Your task to perform on an android device: toggle notification dots Image 0: 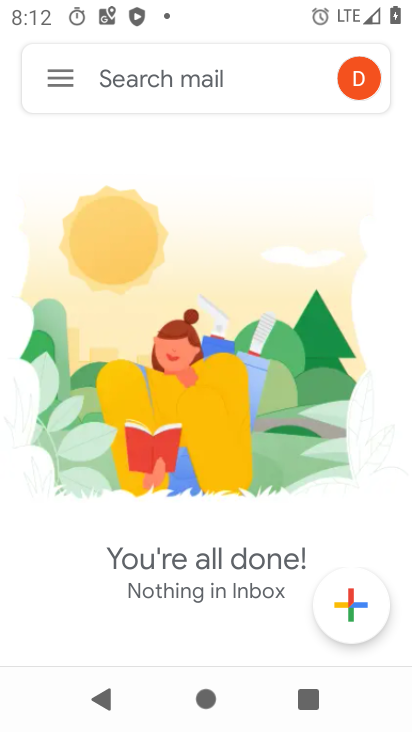
Step 0: press home button
Your task to perform on an android device: toggle notification dots Image 1: 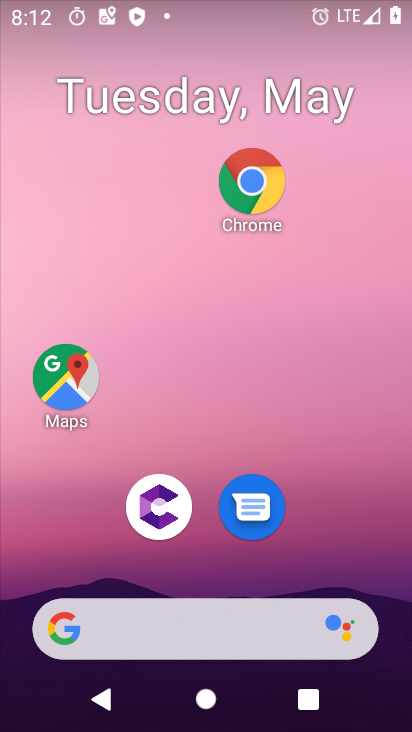
Step 1: drag from (324, 560) to (216, 160)
Your task to perform on an android device: toggle notification dots Image 2: 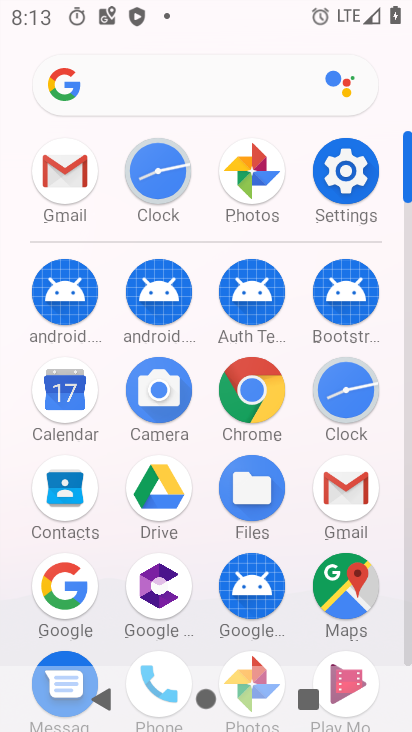
Step 2: click (335, 175)
Your task to perform on an android device: toggle notification dots Image 3: 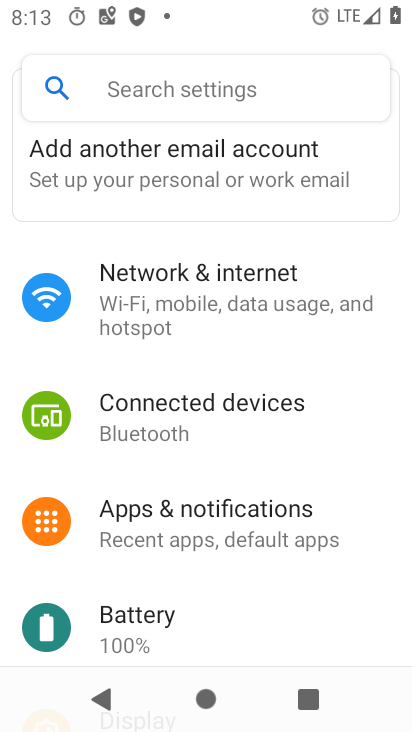
Step 3: drag from (150, 596) to (86, 370)
Your task to perform on an android device: toggle notification dots Image 4: 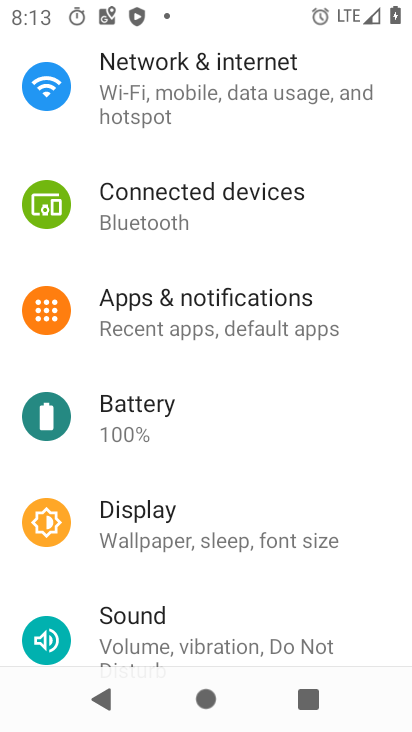
Step 4: click (175, 321)
Your task to perform on an android device: toggle notification dots Image 5: 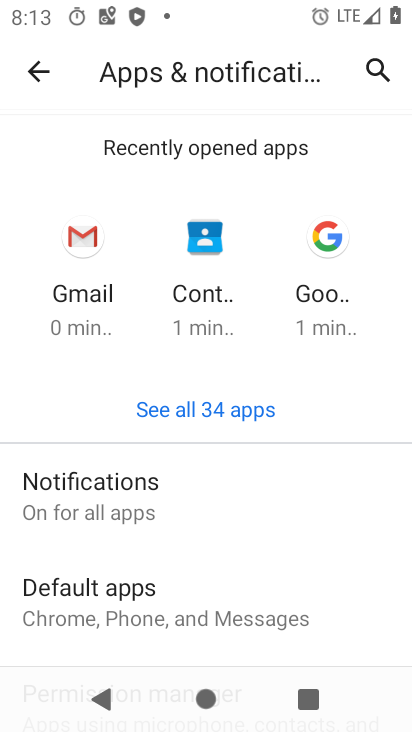
Step 5: click (146, 490)
Your task to perform on an android device: toggle notification dots Image 6: 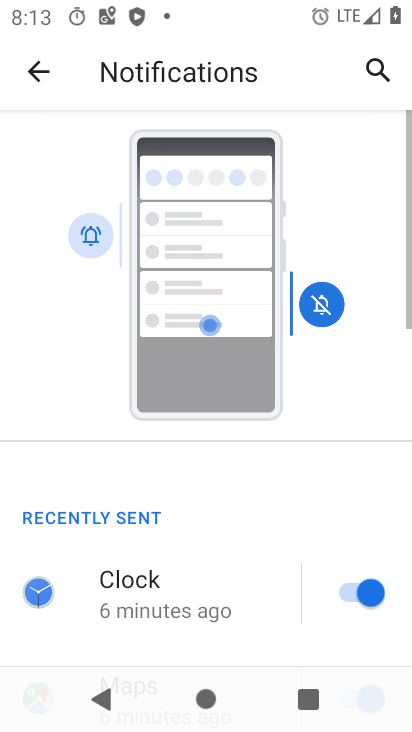
Step 6: drag from (165, 591) to (167, 319)
Your task to perform on an android device: toggle notification dots Image 7: 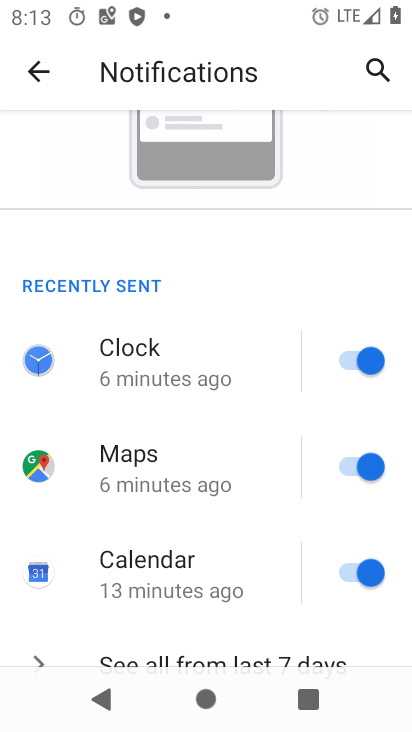
Step 7: drag from (190, 650) to (169, 259)
Your task to perform on an android device: toggle notification dots Image 8: 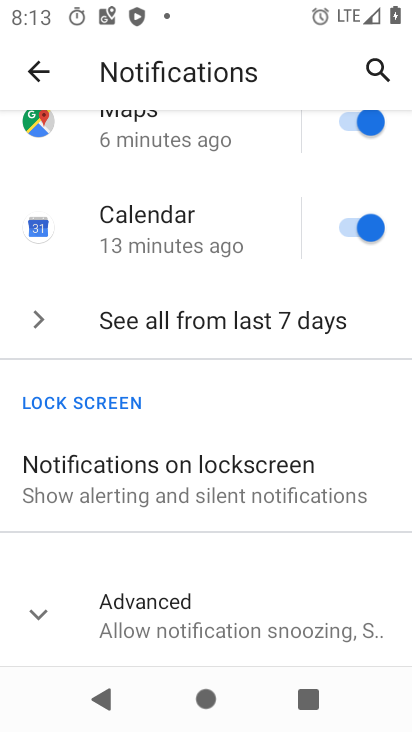
Step 8: click (133, 604)
Your task to perform on an android device: toggle notification dots Image 9: 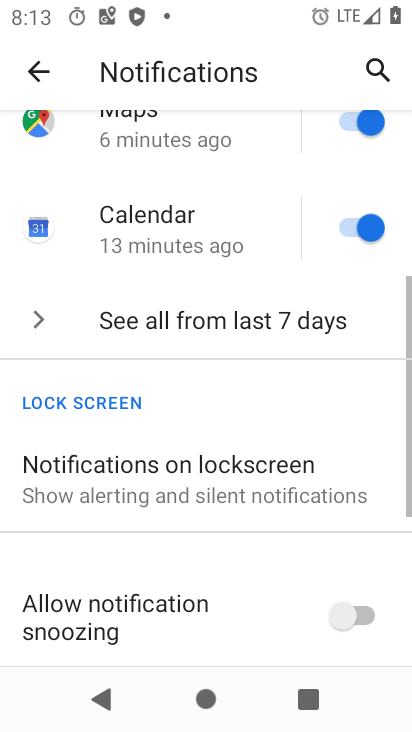
Step 9: drag from (110, 581) to (130, 200)
Your task to perform on an android device: toggle notification dots Image 10: 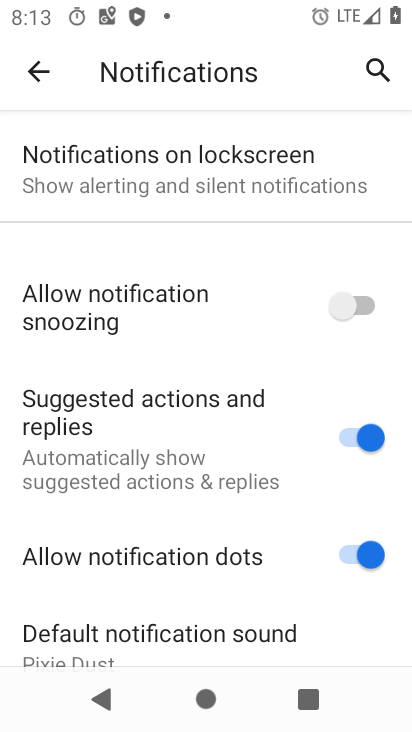
Step 10: click (351, 557)
Your task to perform on an android device: toggle notification dots Image 11: 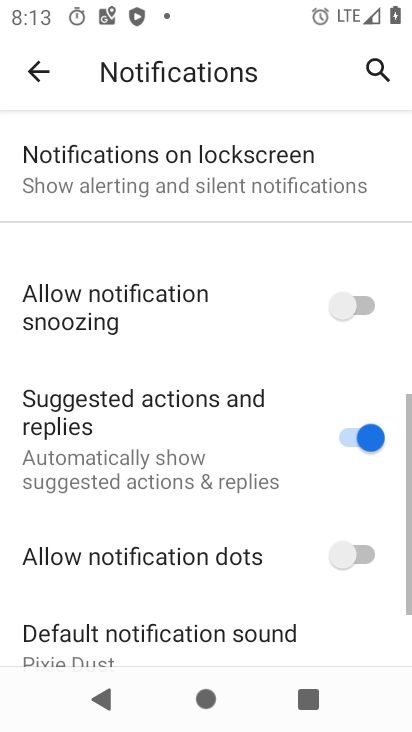
Step 11: task complete